Your task to perform on an android device: clear all cookies in the chrome app Image 0: 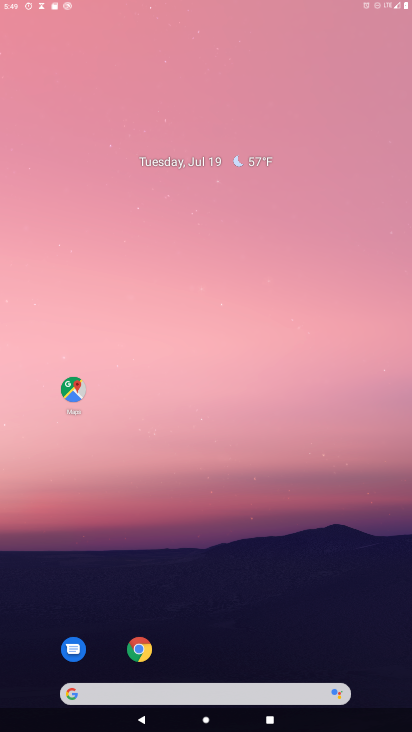
Step 0: click (270, 125)
Your task to perform on an android device: clear all cookies in the chrome app Image 1: 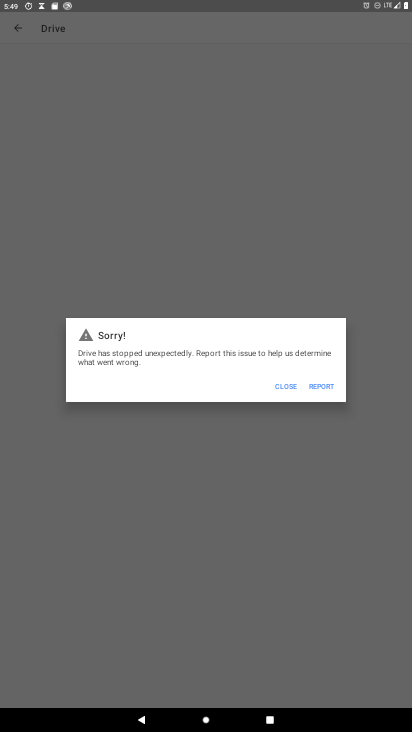
Step 1: press home button
Your task to perform on an android device: clear all cookies in the chrome app Image 2: 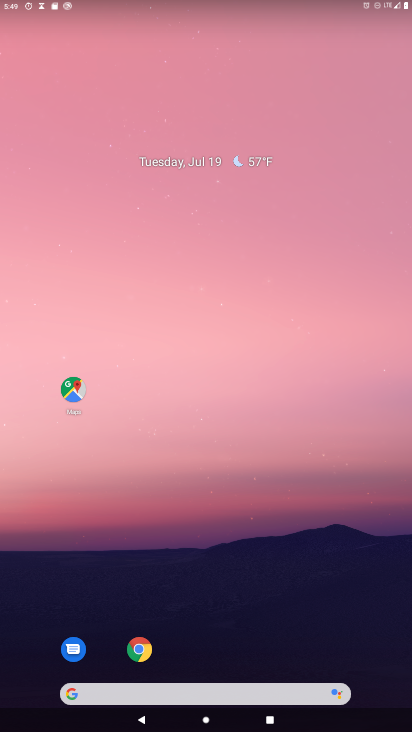
Step 2: click (136, 654)
Your task to perform on an android device: clear all cookies in the chrome app Image 3: 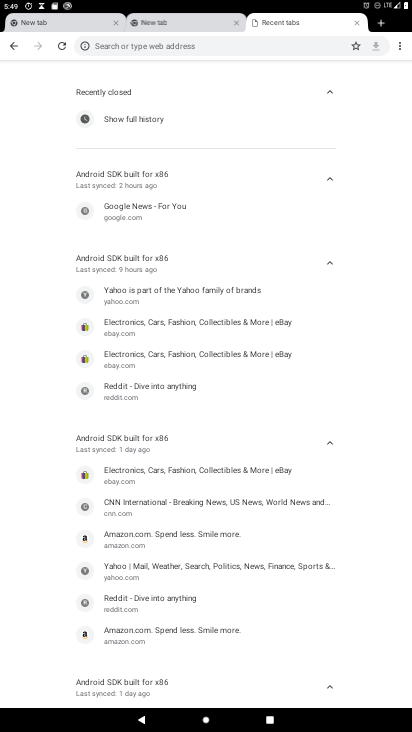
Step 3: click (399, 46)
Your task to perform on an android device: clear all cookies in the chrome app Image 4: 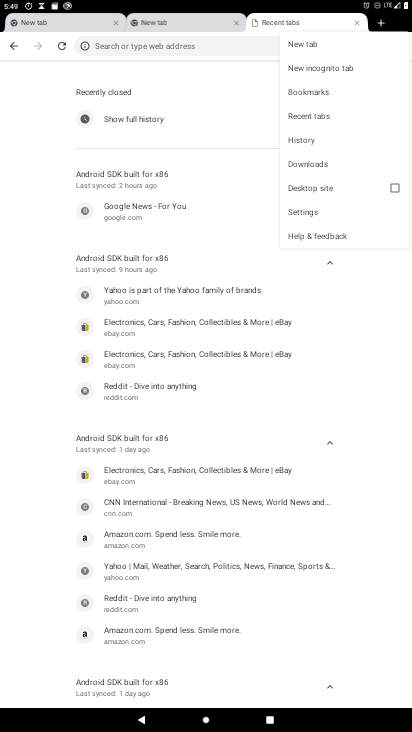
Step 4: click (310, 138)
Your task to perform on an android device: clear all cookies in the chrome app Image 5: 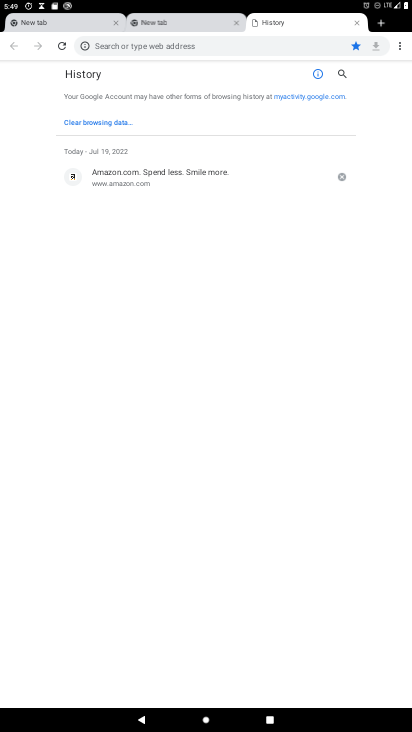
Step 5: click (102, 129)
Your task to perform on an android device: clear all cookies in the chrome app Image 6: 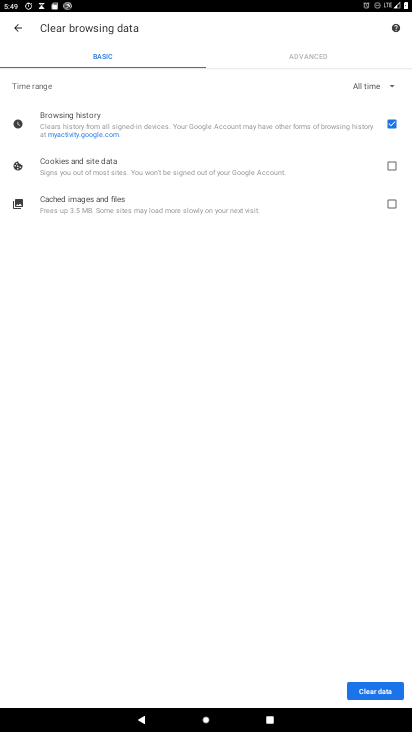
Step 6: click (387, 121)
Your task to perform on an android device: clear all cookies in the chrome app Image 7: 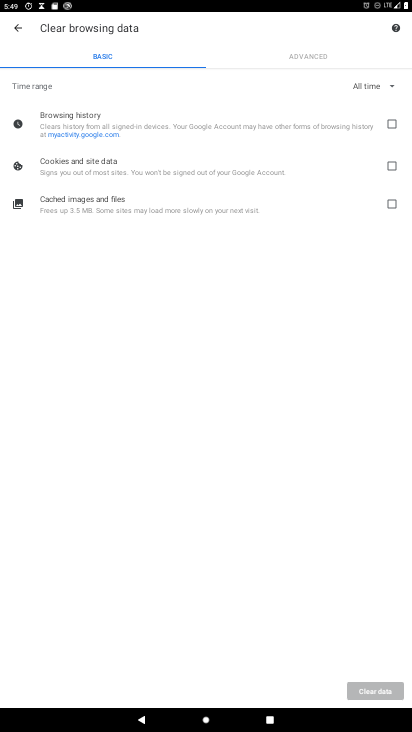
Step 7: click (392, 172)
Your task to perform on an android device: clear all cookies in the chrome app Image 8: 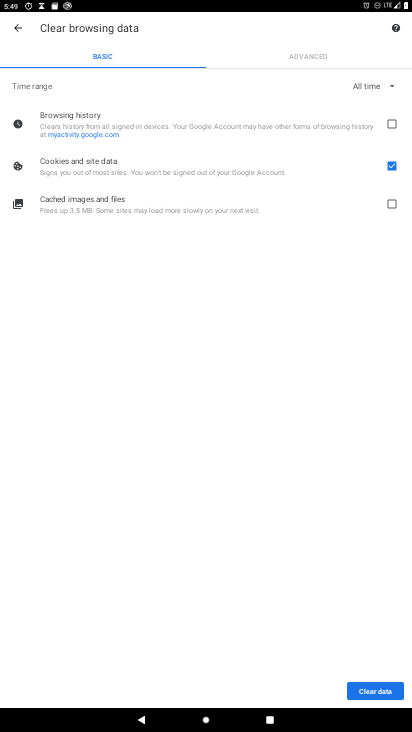
Step 8: click (379, 680)
Your task to perform on an android device: clear all cookies in the chrome app Image 9: 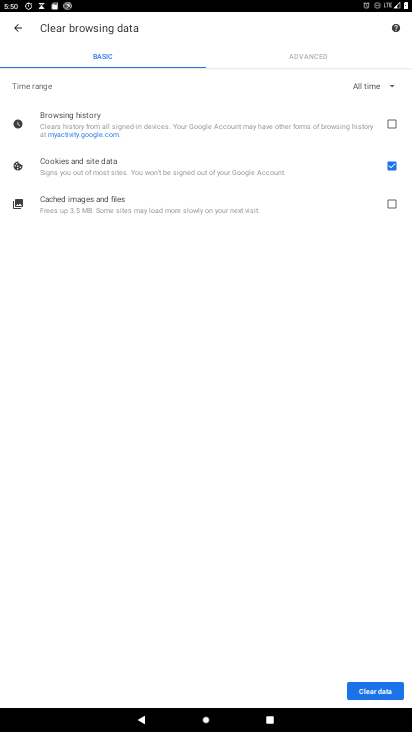
Step 9: click (364, 688)
Your task to perform on an android device: clear all cookies in the chrome app Image 10: 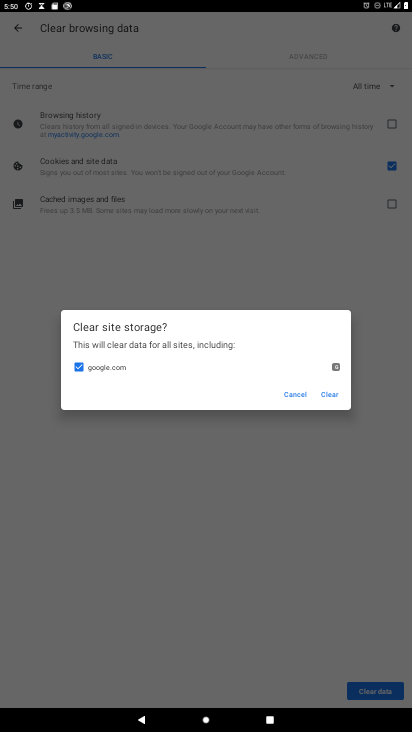
Step 10: click (332, 389)
Your task to perform on an android device: clear all cookies in the chrome app Image 11: 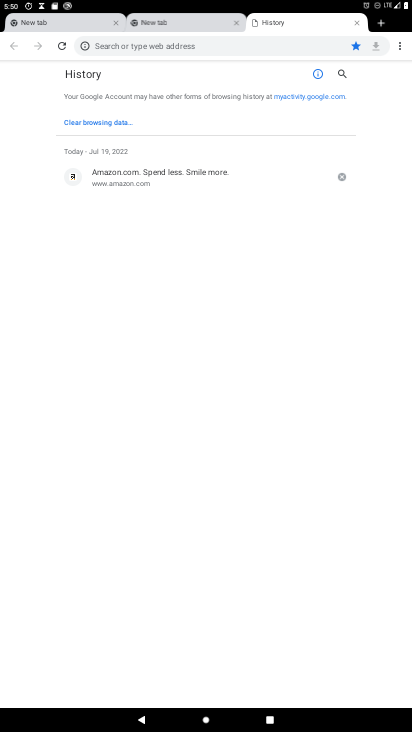
Step 11: task complete